Your task to perform on an android device: Open settings on Google Maps Image 0: 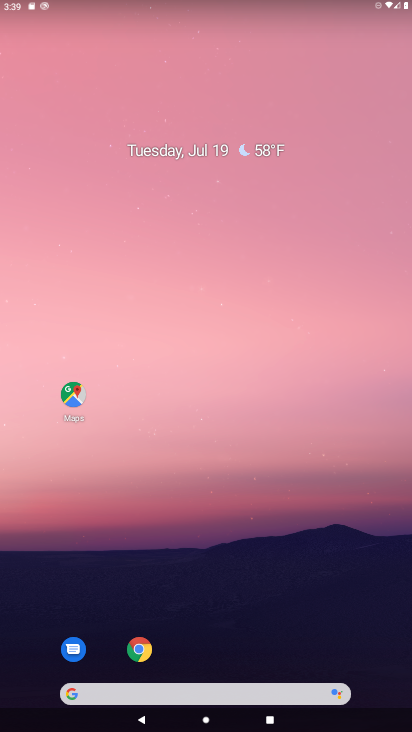
Step 0: drag from (229, 695) to (230, 123)
Your task to perform on an android device: Open settings on Google Maps Image 1: 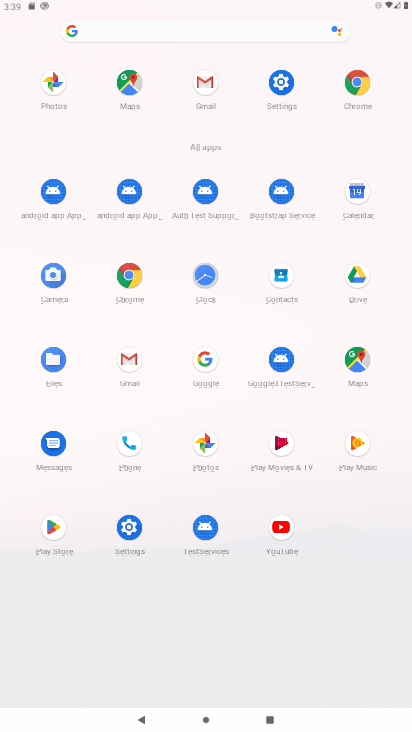
Step 1: click (350, 367)
Your task to perform on an android device: Open settings on Google Maps Image 2: 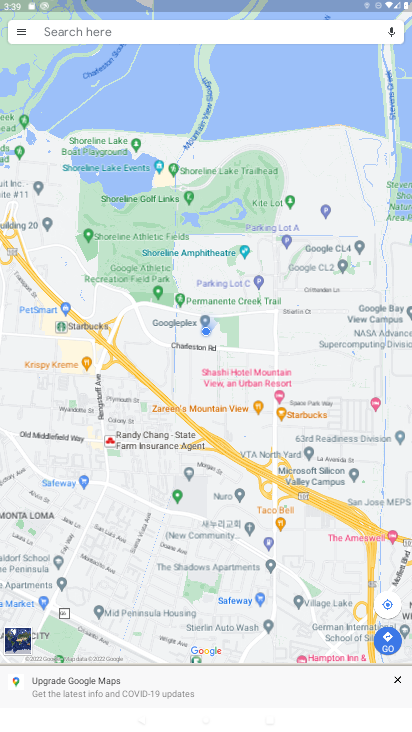
Step 2: task complete